Your task to perform on an android device: Check the news Image 0: 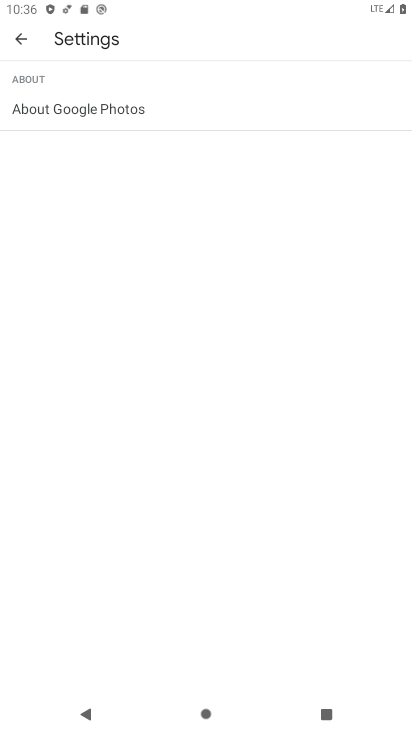
Step 0: press home button
Your task to perform on an android device: Check the news Image 1: 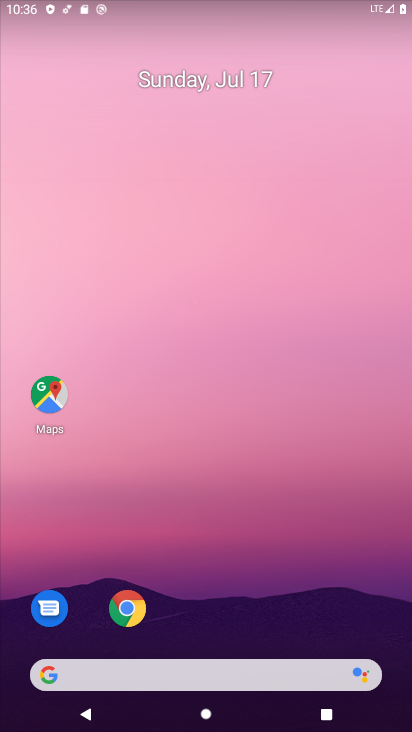
Step 1: click (135, 611)
Your task to perform on an android device: Check the news Image 2: 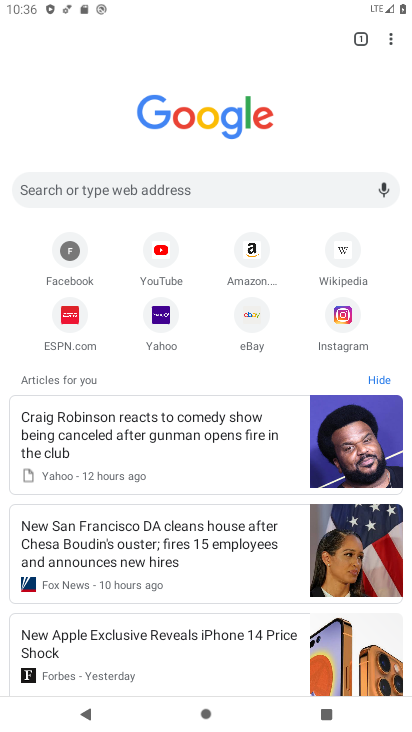
Step 2: click (196, 187)
Your task to perform on an android device: Check the news Image 3: 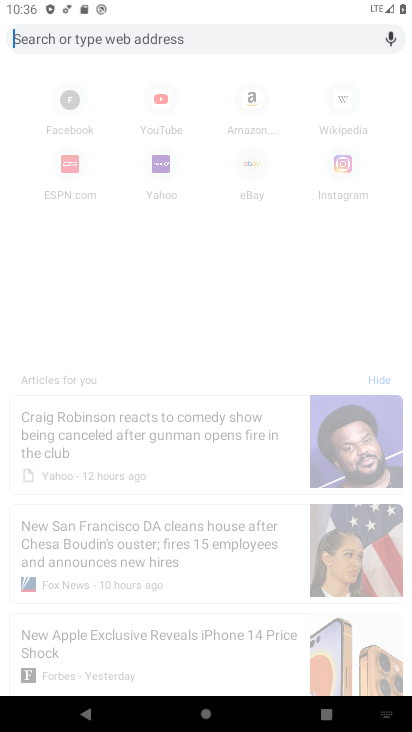
Step 3: type "news"
Your task to perform on an android device: Check the news Image 4: 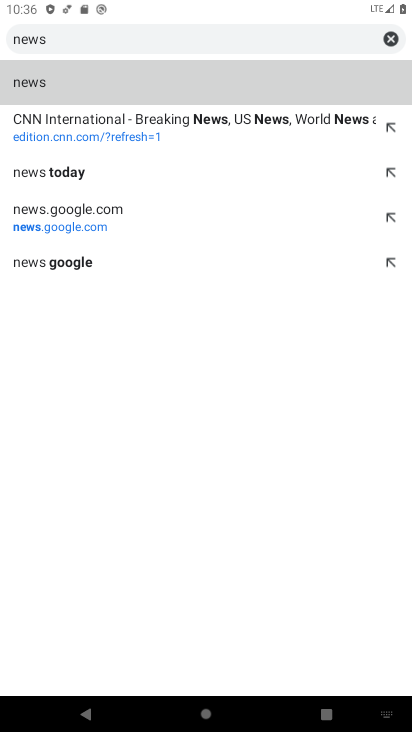
Step 4: click (156, 82)
Your task to perform on an android device: Check the news Image 5: 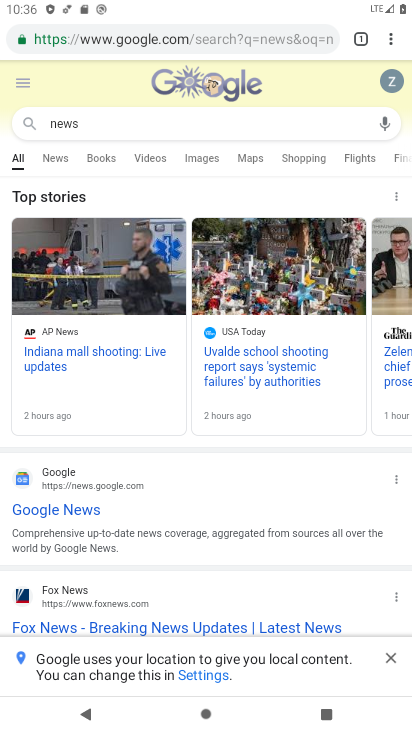
Step 5: task complete